Your task to perform on an android device: turn on sleep mode Image 0: 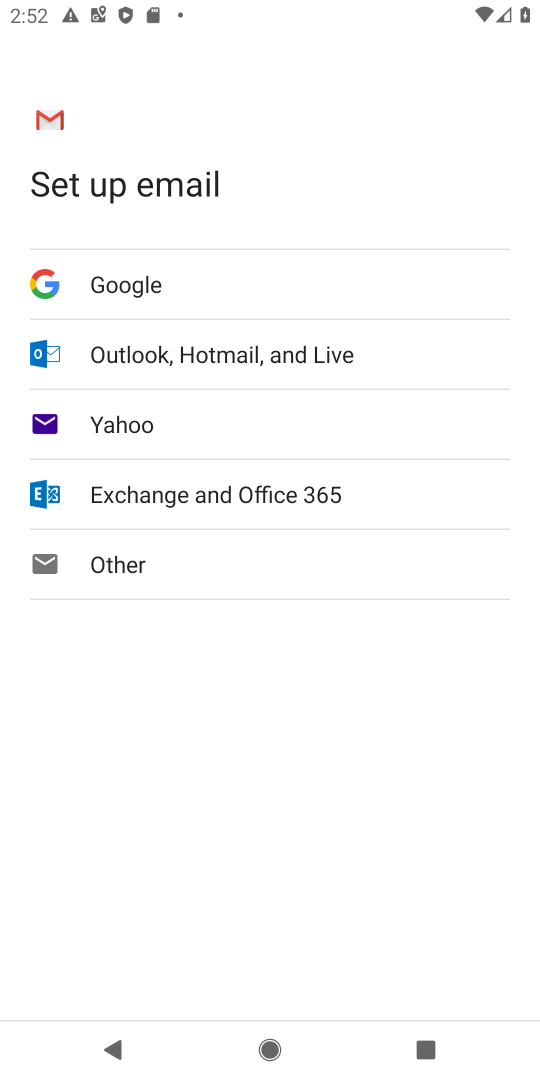
Step 0: press back button
Your task to perform on an android device: turn on sleep mode Image 1: 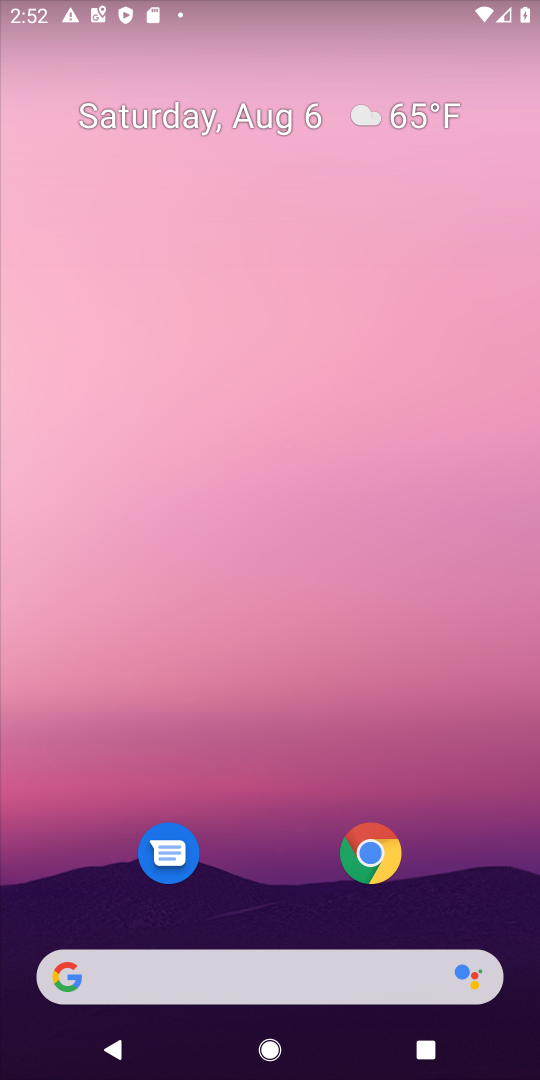
Step 1: drag from (259, 933) to (345, 147)
Your task to perform on an android device: turn on sleep mode Image 2: 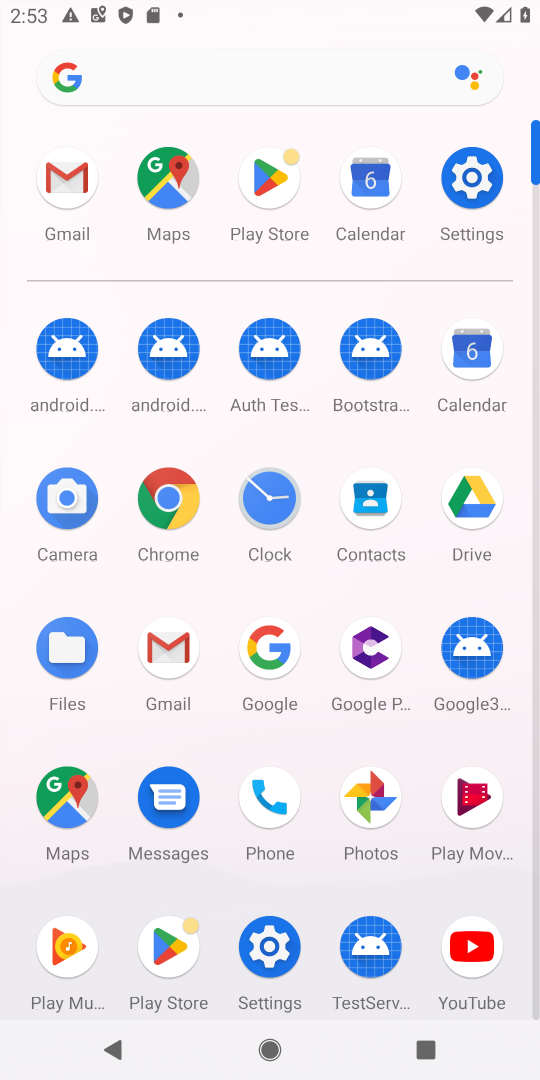
Step 2: click (480, 161)
Your task to perform on an android device: turn on sleep mode Image 3: 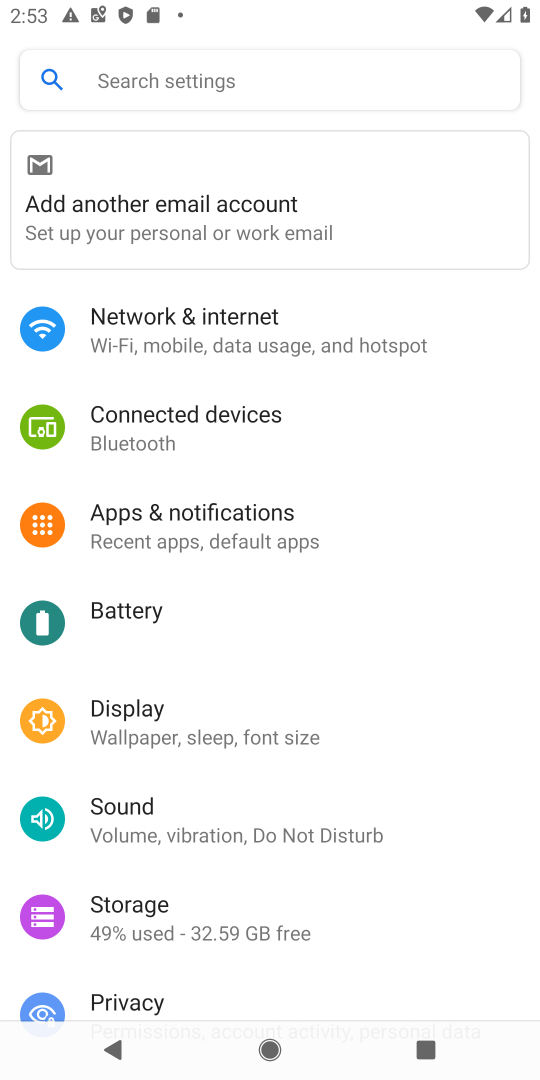
Step 3: click (195, 56)
Your task to perform on an android device: turn on sleep mode Image 4: 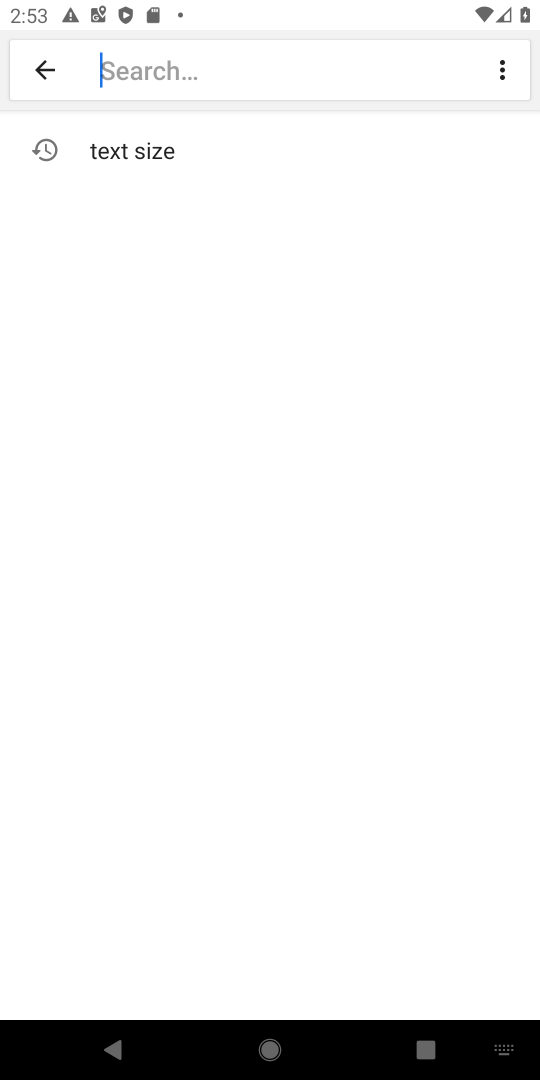
Step 4: type "sleep mode"
Your task to perform on an android device: turn on sleep mode Image 5: 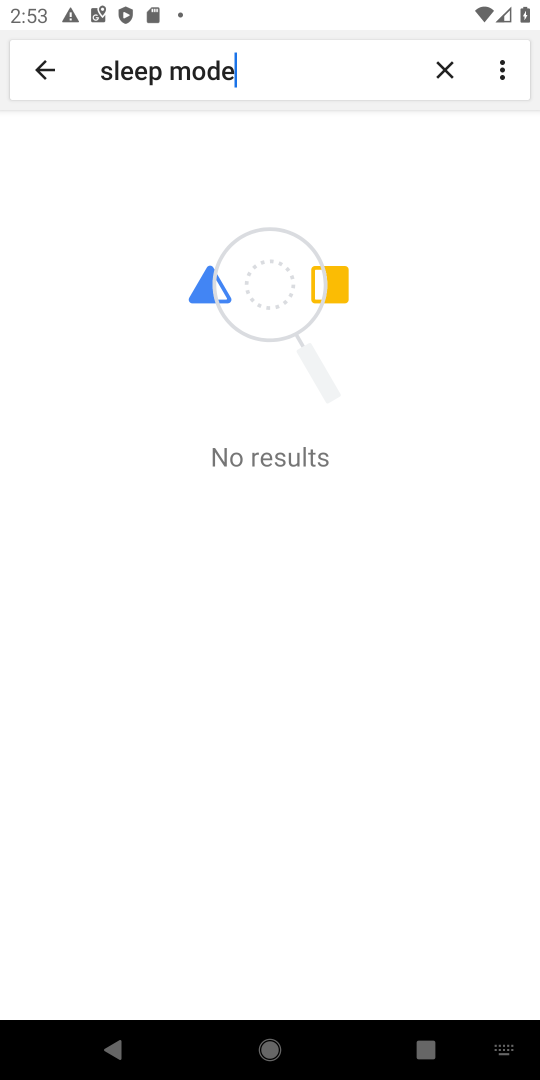
Step 5: task complete